Your task to perform on an android device: Open the map Image 0: 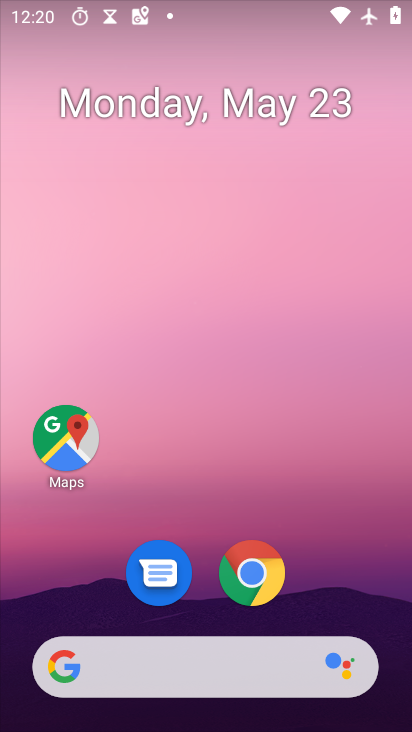
Step 0: click (68, 432)
Your task to perform on an android device: Open the map Image 1: 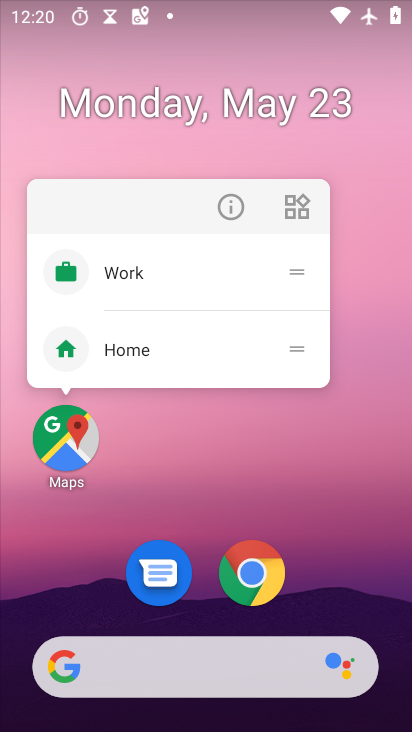
Step 1: click (65, 445)
Your task to perform on an android device: Open the map Image 2: 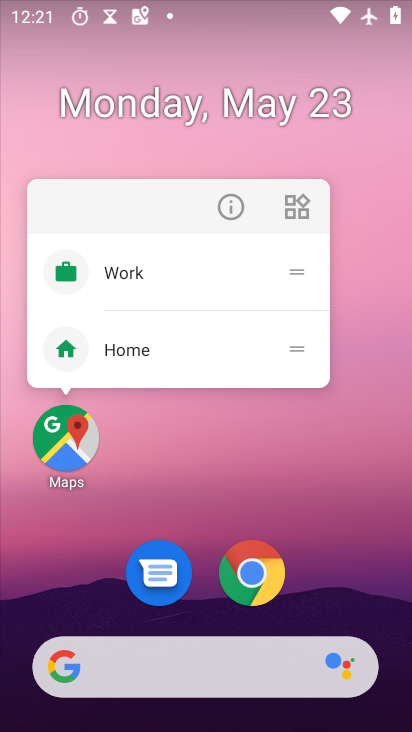
Step 2: click (65, 445)
Your task to perform on an android device: Open the map Image 3: 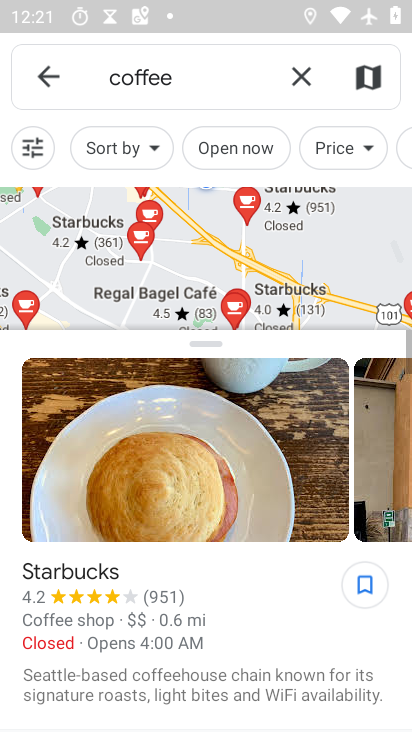
Step 3: click (49, 80)
Your task to perform on an android device: Open the map Image 4: 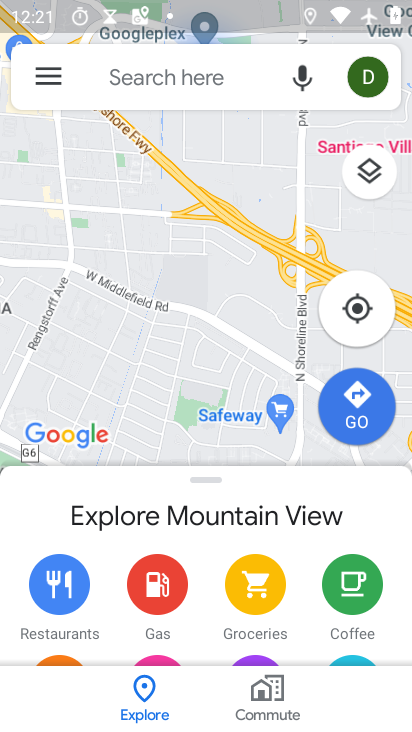
Step 4: task complete